Your task to perform on an android device: Go to internet settings Image 0: 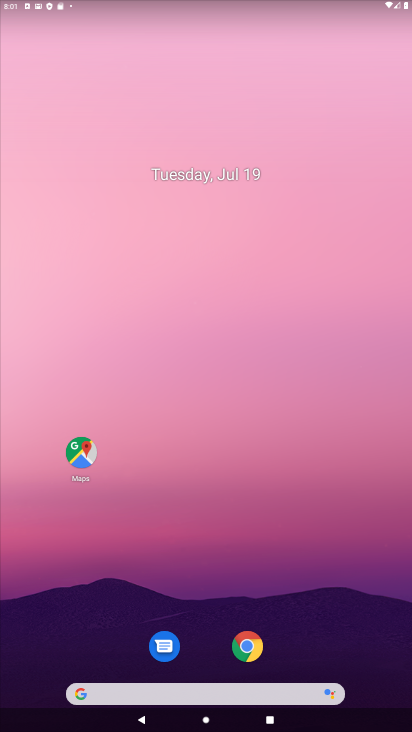
Step 0: press enter
Your task to perform on an android device: Go to internet settings Image 1: 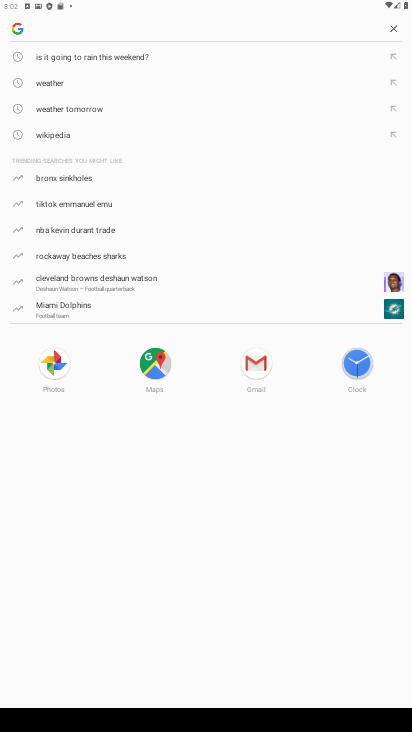
Step 1: press home button
Your task to perform on an android device: Go to internet settings Image 2: 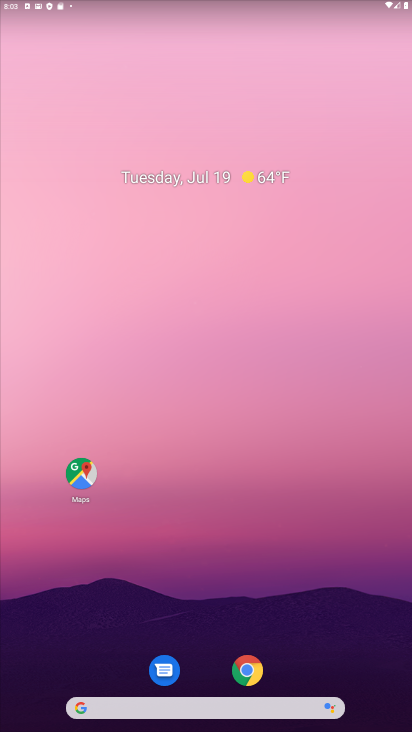
Step 2: drag from (260, 612) to (396, 342)
Your task to perform on an android device: Go to internet settings Image 3: 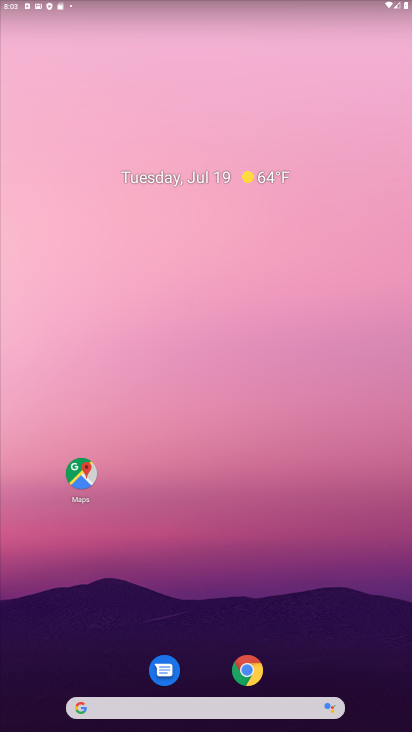
Step 3: drag from (169, 721) to (277, 9)
Your task to perform on an android device: Go to internet settings Image 4: 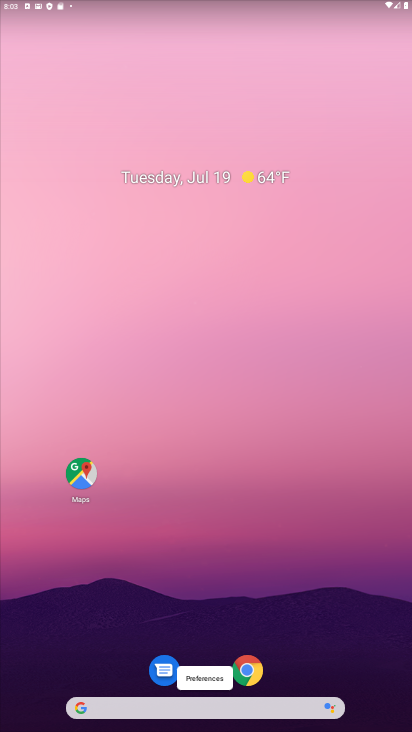
Step 4: drag from (243, 731) to (353, 105)
Your task to perform on an android device: Go to internet settings Image 5: 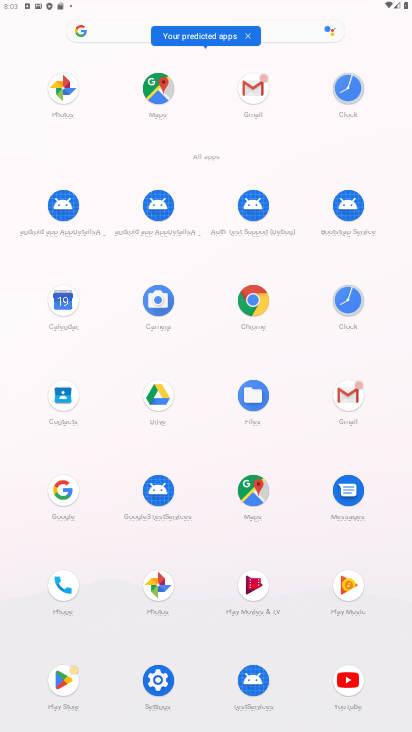
Step 5: click (155, 679)
Your task to perform on an android device: Go to internet settings Image 6: 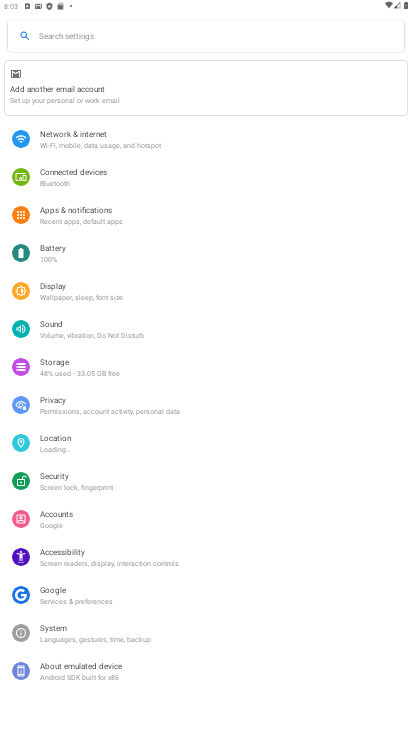
Step 6: click (193, 145)
Your task to perform on an android device: Go to internet settings Image 7: 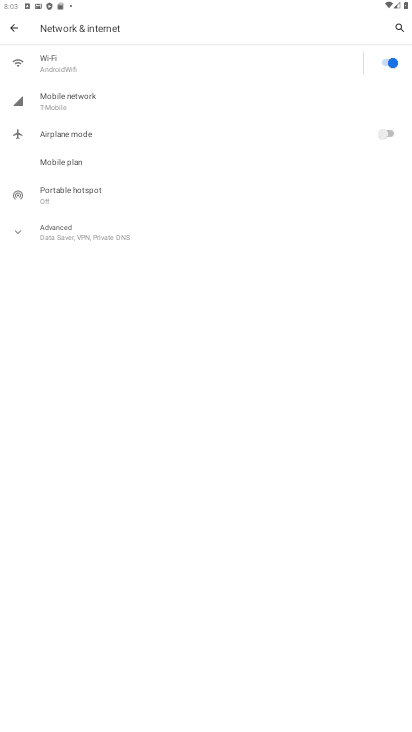
Step 7: task complete